Your task to perform on an android device: uninstall "Contacts" Image 0: 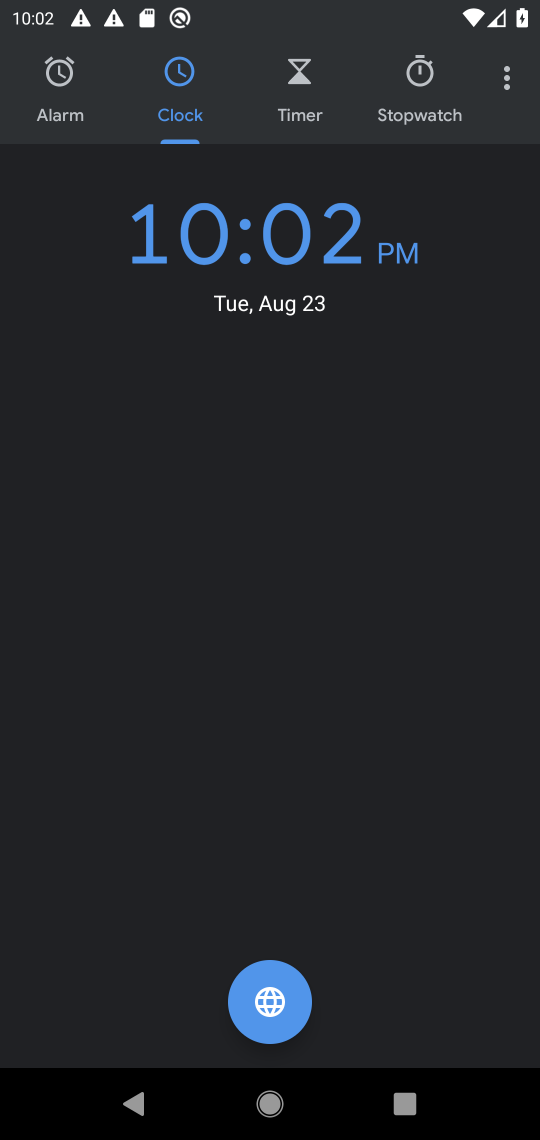
Step 0: press home button
Your task to perform on an android device: uninstall "Contacts" Image 1: 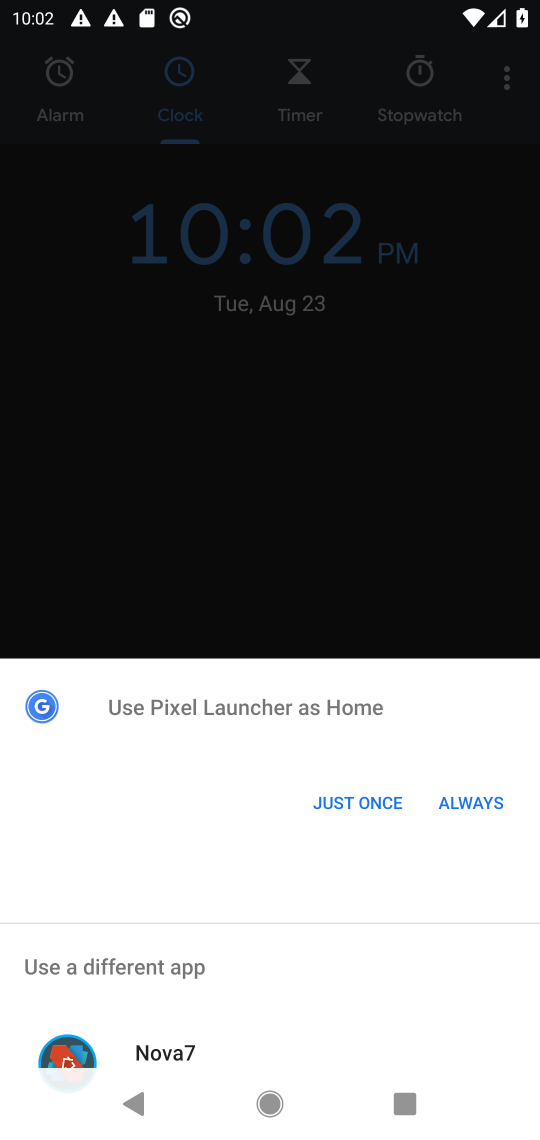
Step 1: click (377, 810)
Your task to perform on an android device: uninstall "Contacts" Image 2: 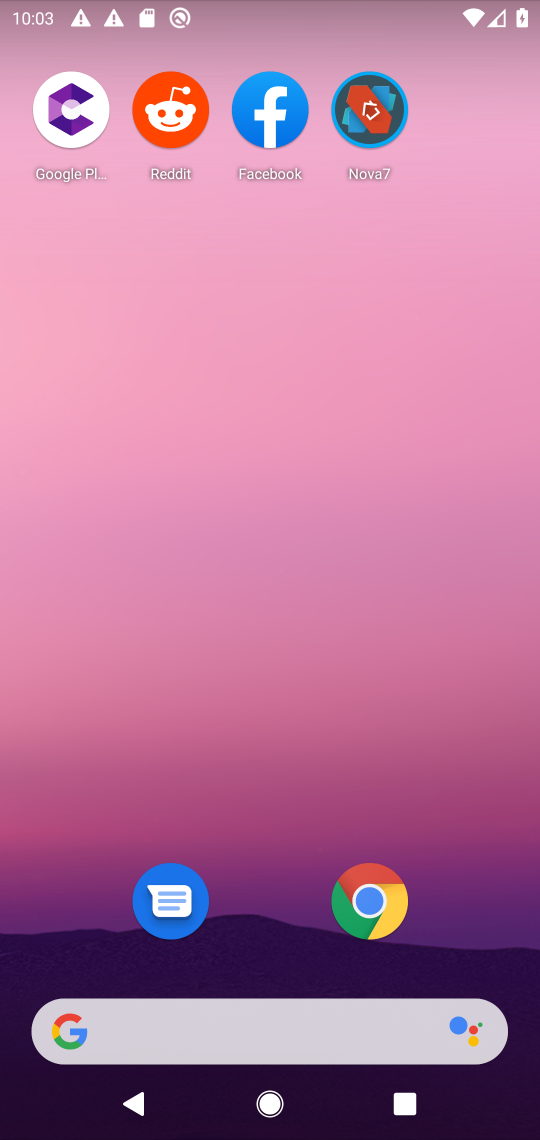
Step 2: drag from (157, 921) to (134, 721)
Your task to perform on an android device: uninstall "Contacts" Image 3: 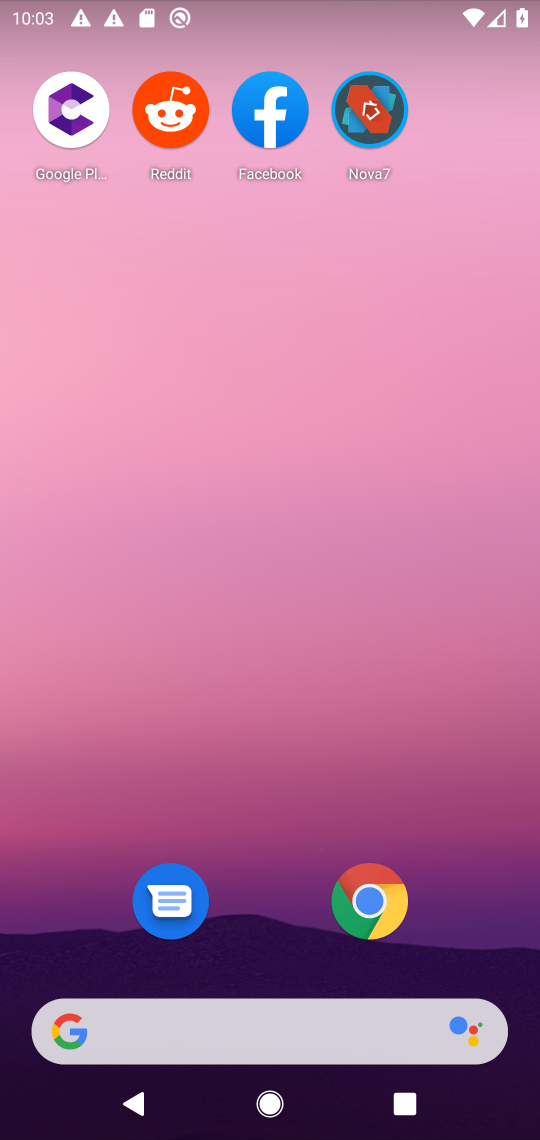
Step 3: drag from (197, 1003) to (477, 37)
Your task to perform on an android device: uninstall "Contacts" Image 4: 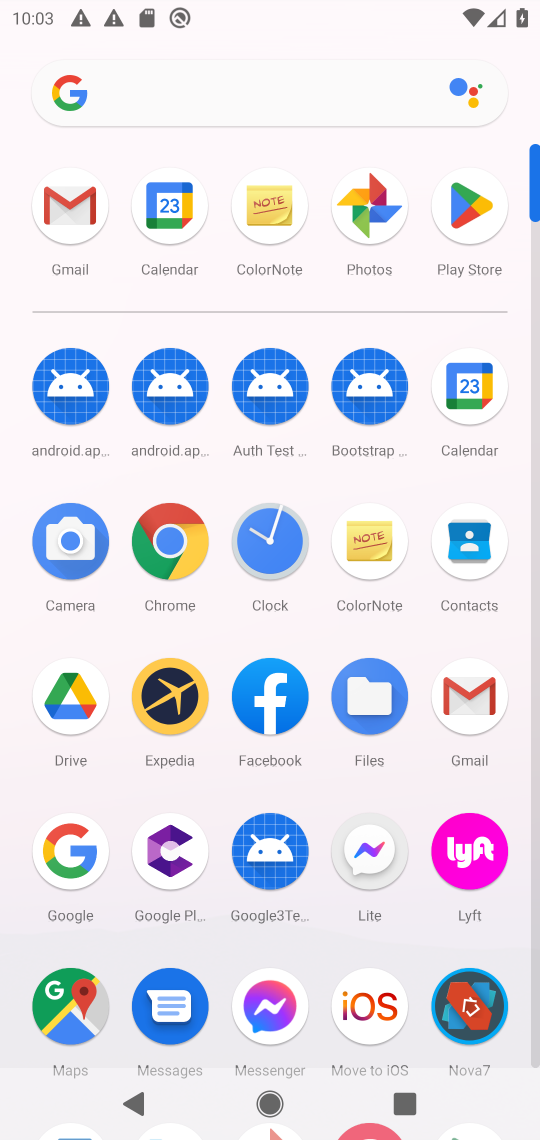
Step 4: click (453, 199)
Your task to perform on an android device: uninstall "Contacts" Image 5: 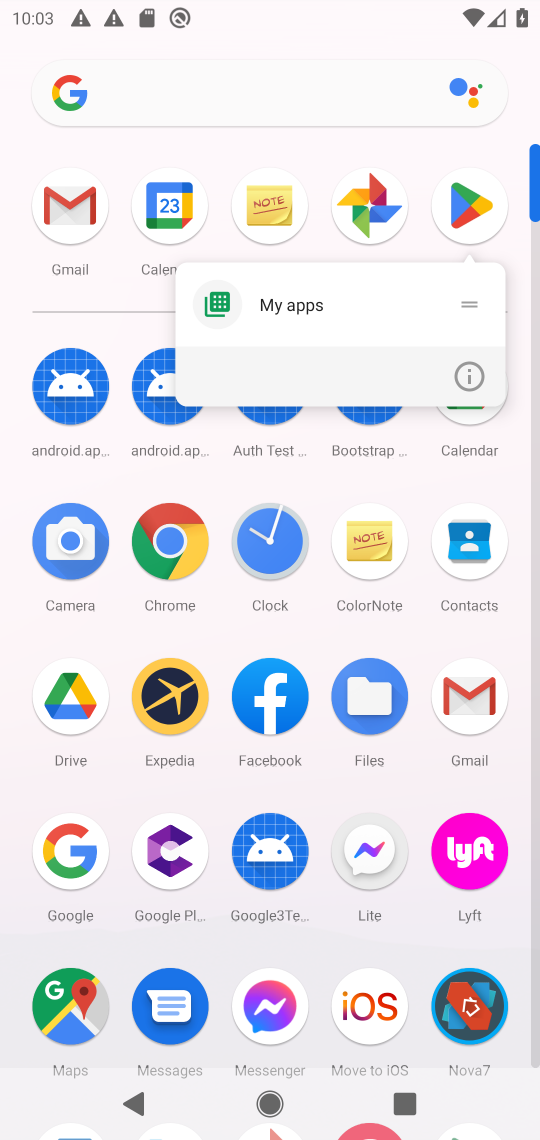
Step 5: click (453, 205)
Your task to perform on an android device: uninstall "Contacts" Image 6: 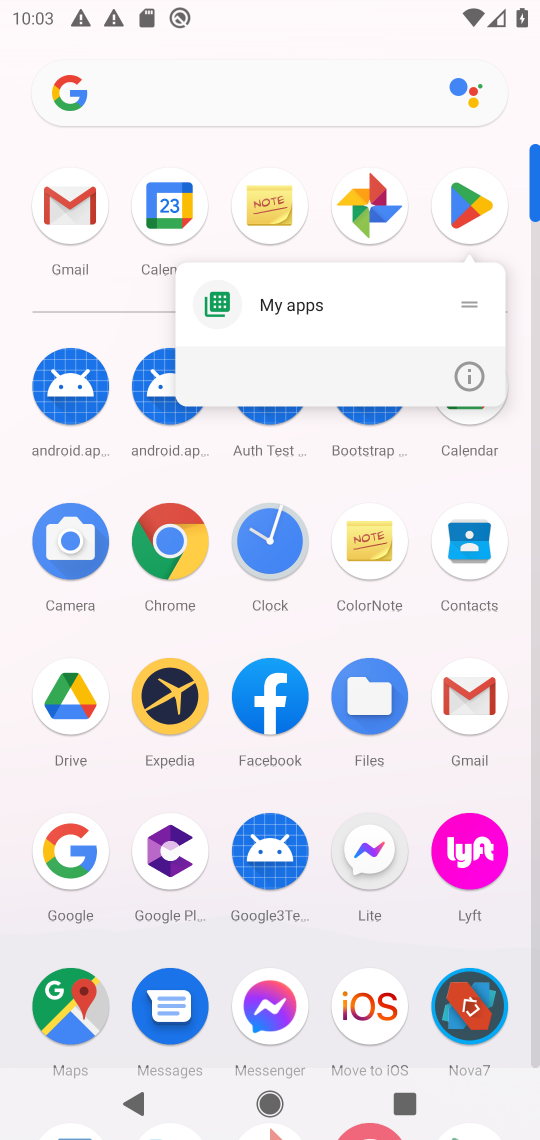
Step 6: click (450, 223)
Your task to perform on an android device: uninstall "Contacts" Image 7: 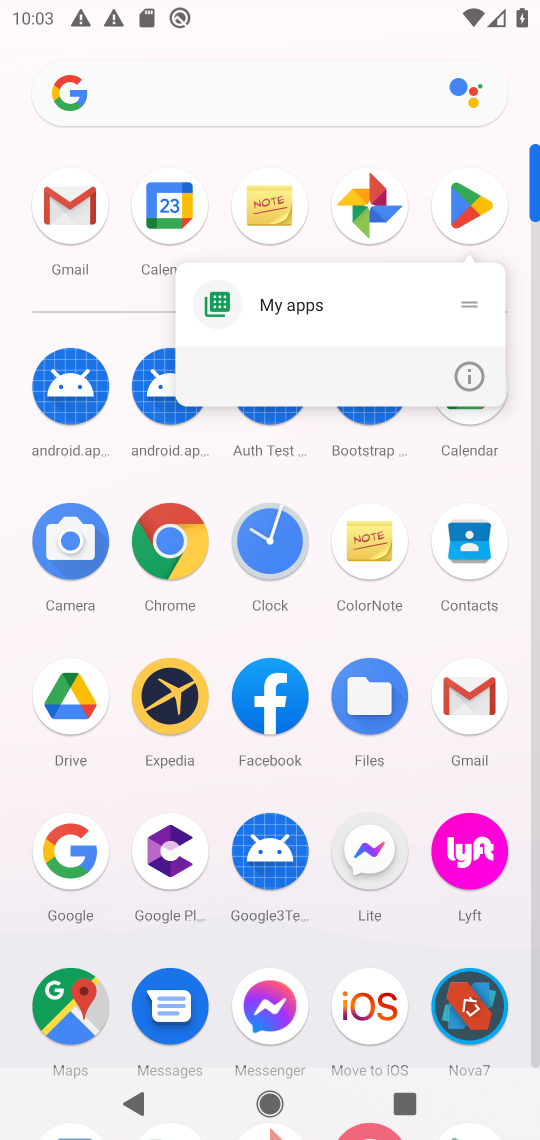
Step 7: click (450, 223)
Your task to perform on an android device: uninstall "Contacts" Image 8: 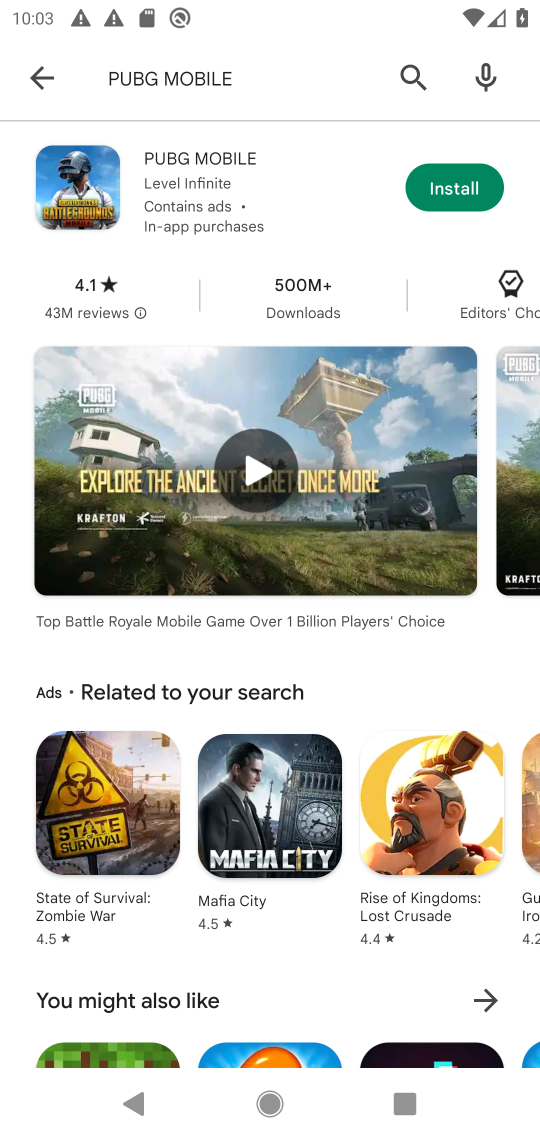
Step 8: press back button
Your task to perform on an android device: uninstall "Contacts" Image 9: 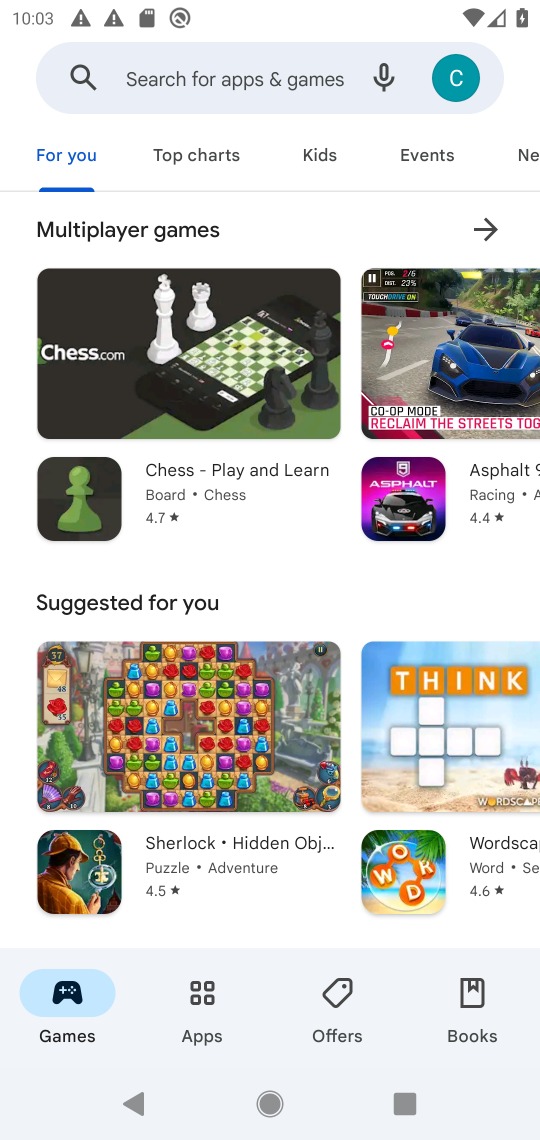
Step 9: click (147, 92)
Your task to perform on an android device: uninstall "Contacts" Image 10: 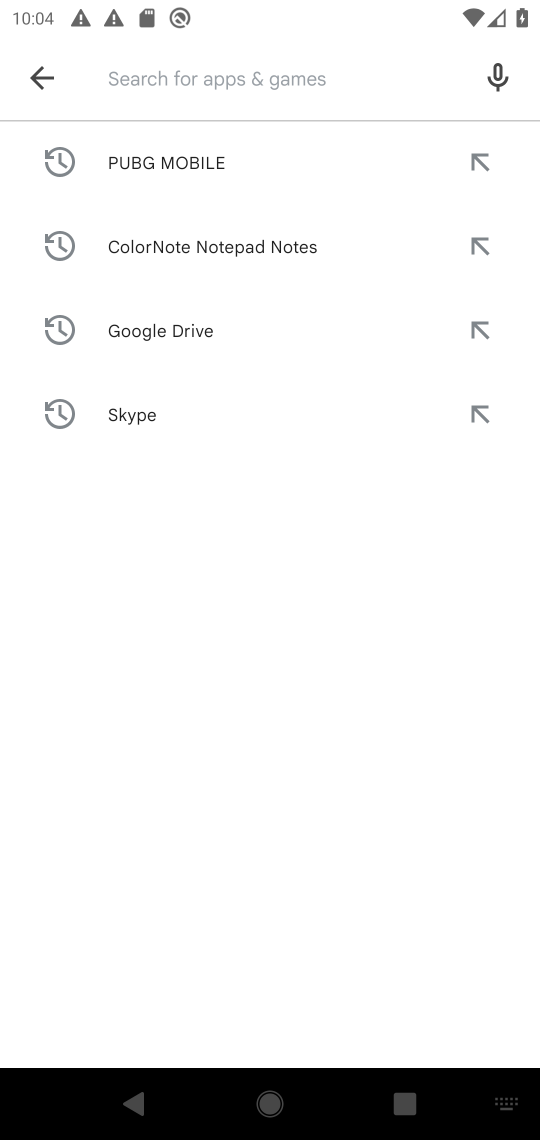
Step 10: type "Contacts"
Your task to perform on an android device: uninstall "Contacts" Image 11: 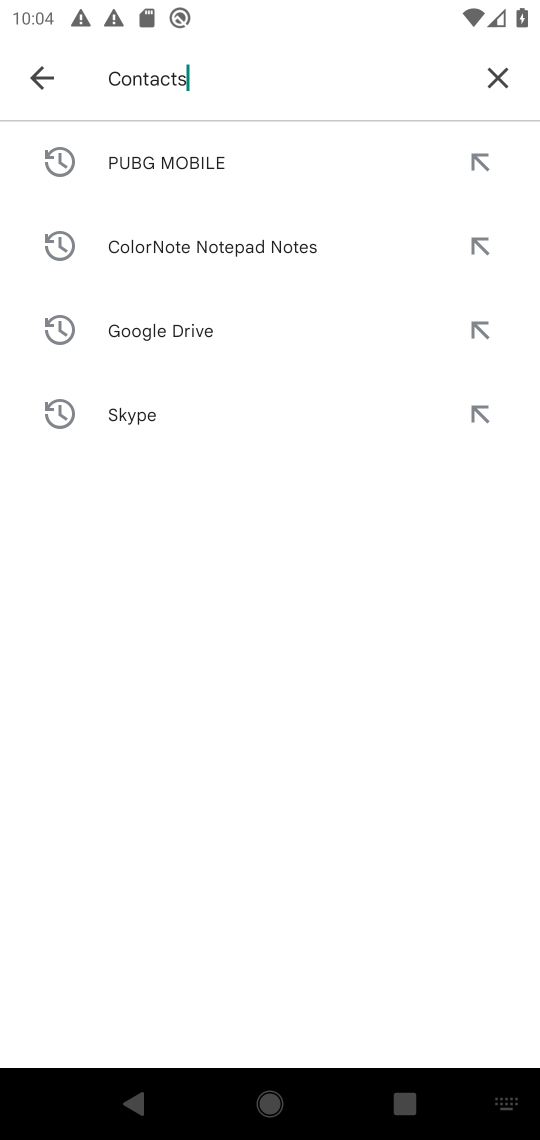
Step 11: press enter
Your task to perform on an android device: uninstall "Contacts" Image 12: 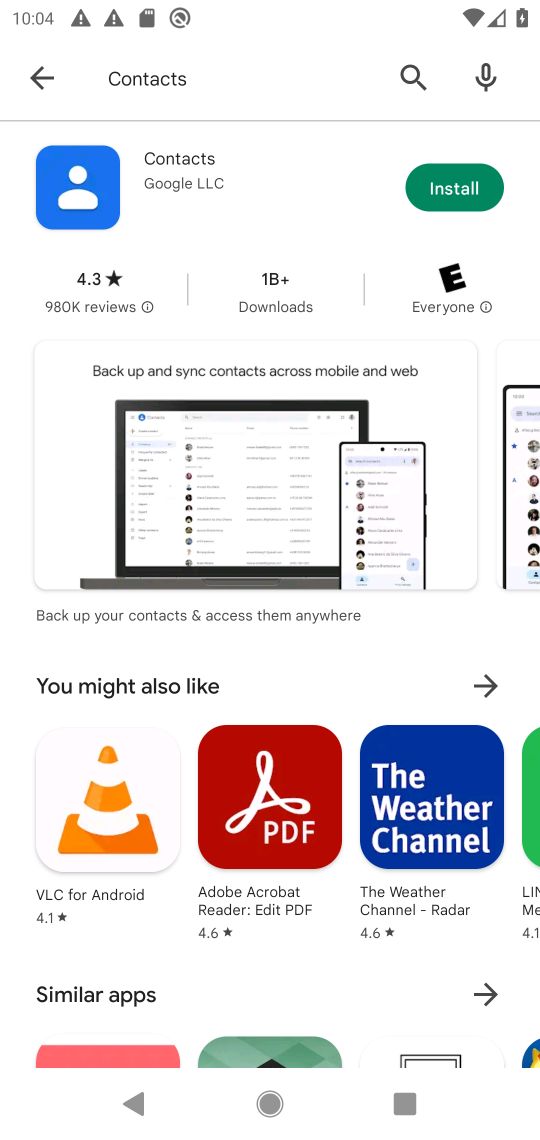
Step 12: task complete